Your task to perform on an android device: Go to ESPN.com Image 0: 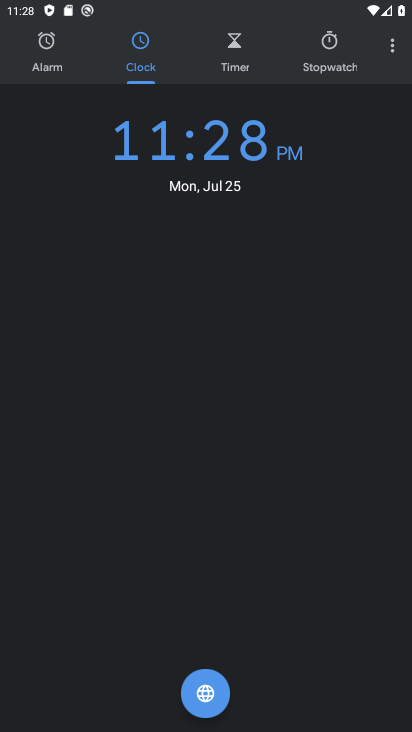
Step 0: press back button
Your task to perform on an android device: Go to ESPN.com Image 1: 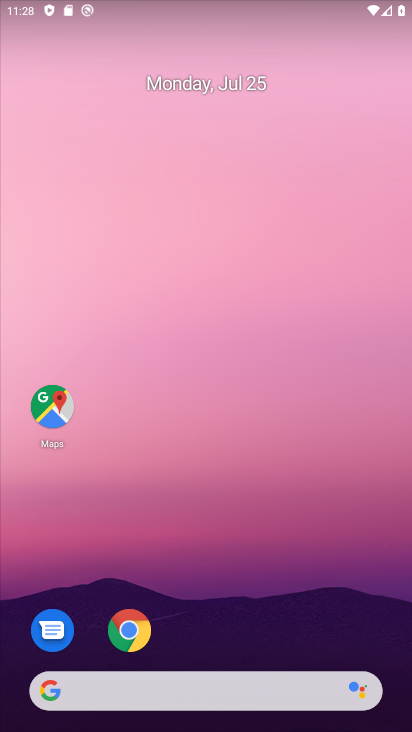
Step 1: click (132, 634)
Your task to perform on an android device: Go to ESPN.com Image 2: 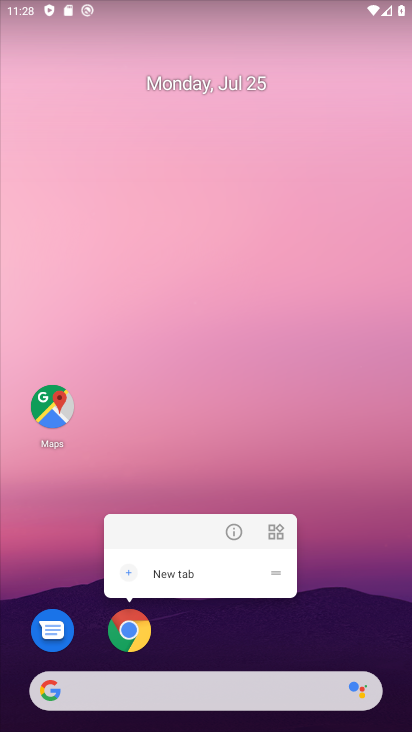
Step 2: click (132, 627)
Your task to perform on an android device: Go to ESPN.com Image 3: 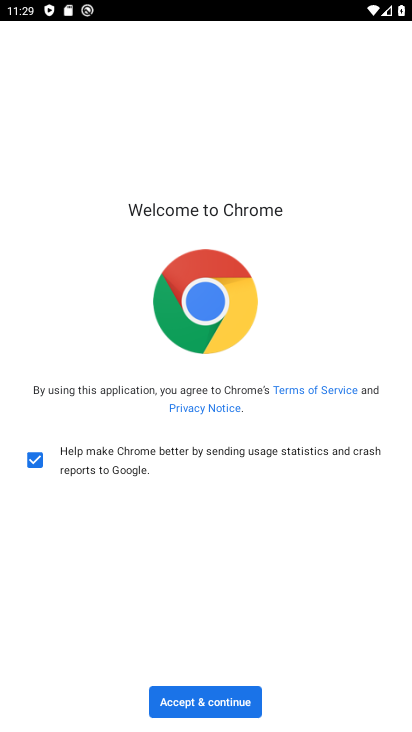
Step 3: click (179, 707)
Your task to perform on an android device: Go to ESPN.com Image 4: 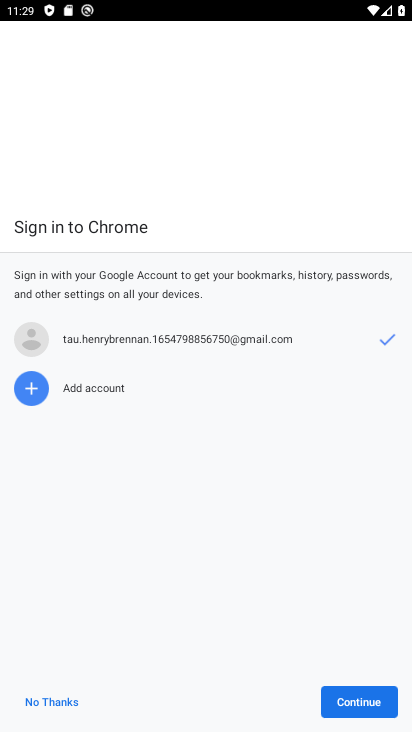
Step 4: click (356, 699)
Your task to perform on an android device: Go to ESPN.com Image 5: 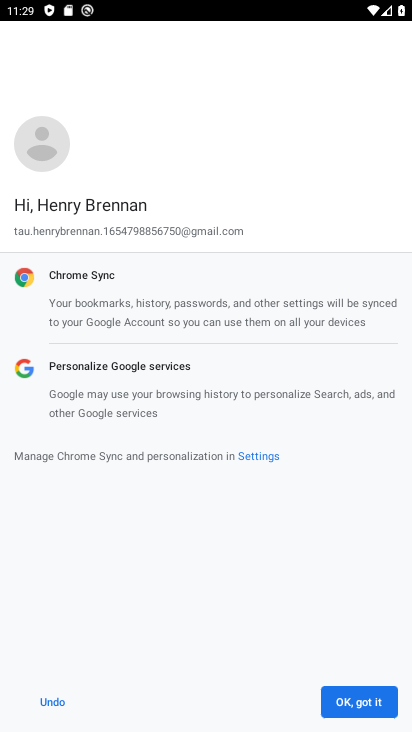
Step 5: click (354, 708)
Your task to perform on an android device: Go to ESPN.com Image 6: 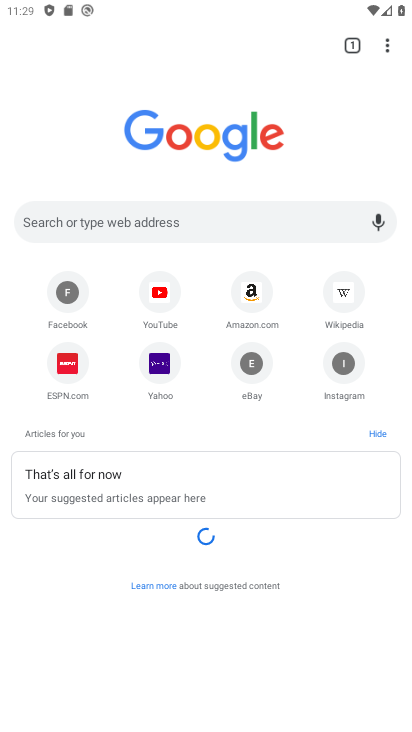
Step 6: click (67, 382)
Your task to perform on an android device: Go to ESPN.com Image 7: 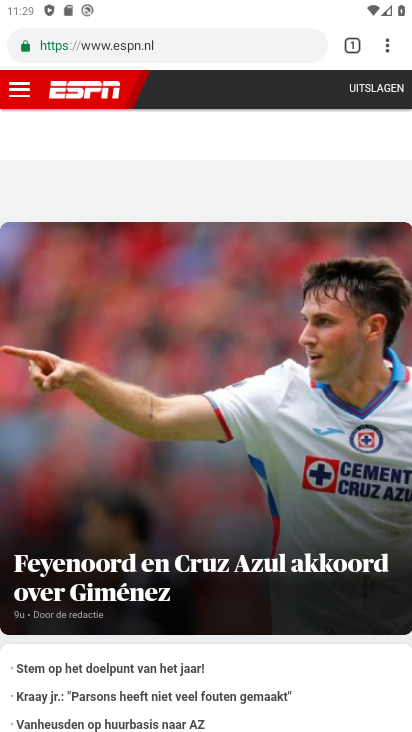
Step 7: task complete